Your task to perform on an android device: Do I have any events this weekend? Image 0: 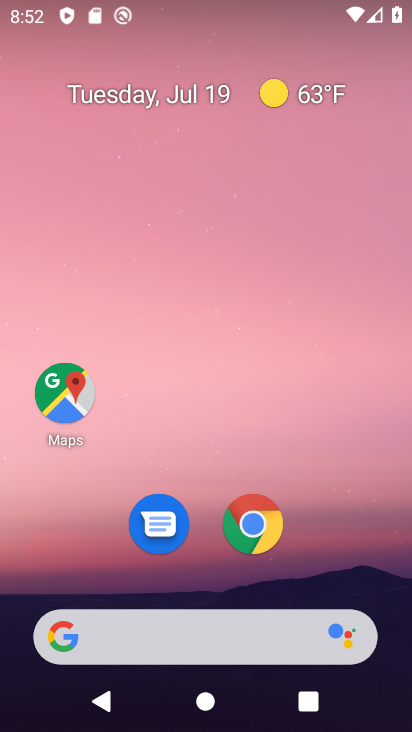
Step 0: press home button
Your task to perform on an android device: Do I have any events this weekend? Image 1: 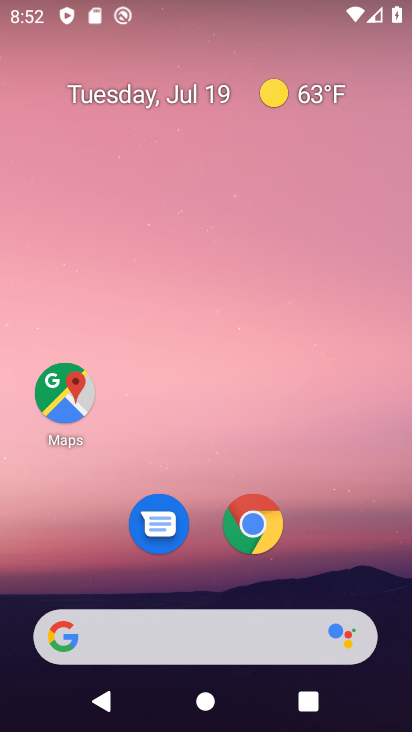
Step 1: drag from (164, 638) to (311, 170)
Your task to perform on an android device: Do I have any events this weekend? Image 2: 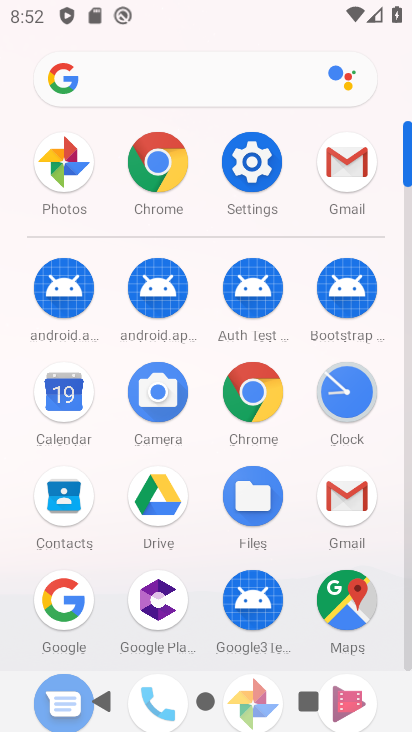
Step 2: click (62, 402)
Your task to perform on an android device: Do I have any events this weekend? Image 3: 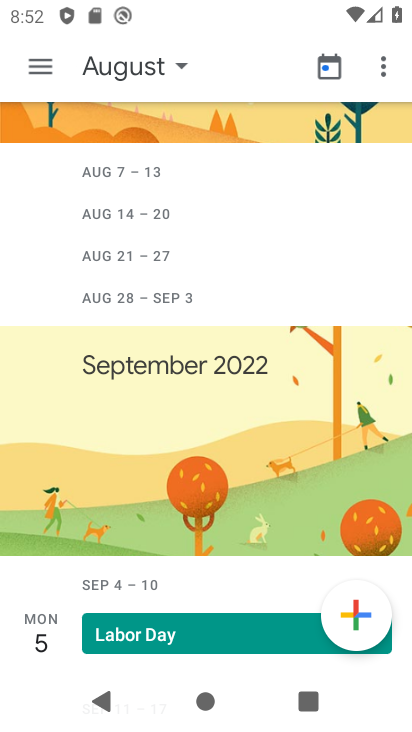
Step 3: click (129, 58)
Your task to perform on an android device: Do I have any events this weekend? Image 4: 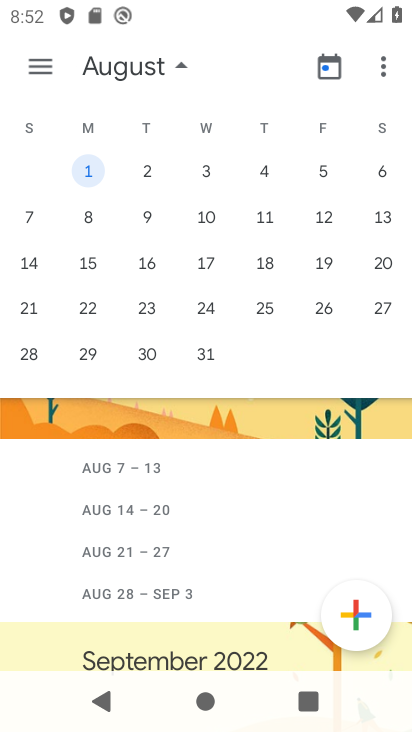
Step 4: drag from (85, 242) to (411, 254)
Your task to perform on an android device: Do I have any events this weekend? Image 5: 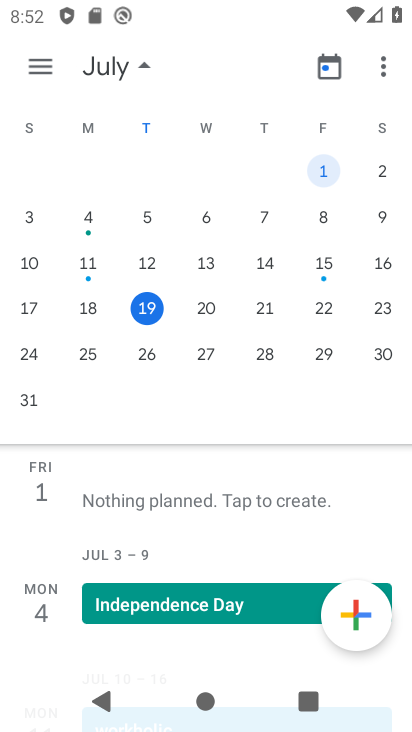
Step 5: click (377, 307)
Your task to perform on an android device: Do I have any events this weekend? Image 6: 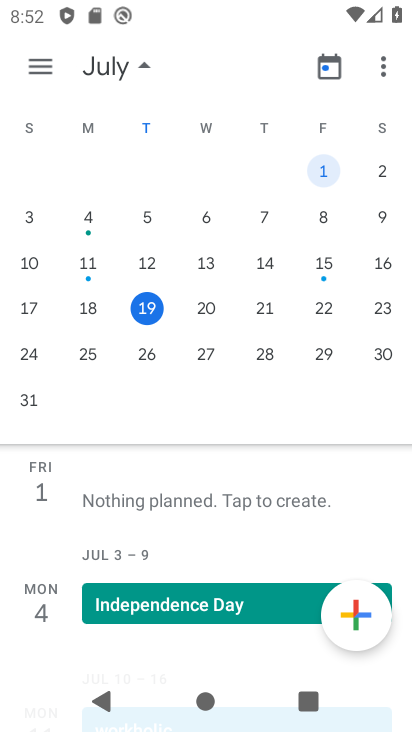
Step 6: click (382, 310)
Your task to perform on an android device: Do I have any events this weekend? Image 7: 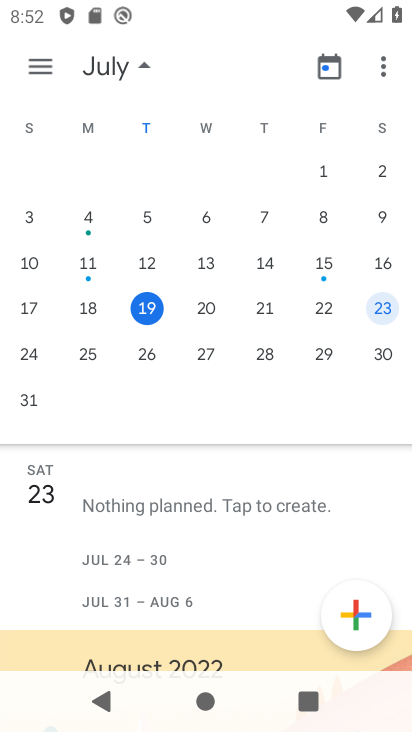
Step 7: click (53, 62)
Your task to perform on an android device: Do I have any events this weekend? Image 8: 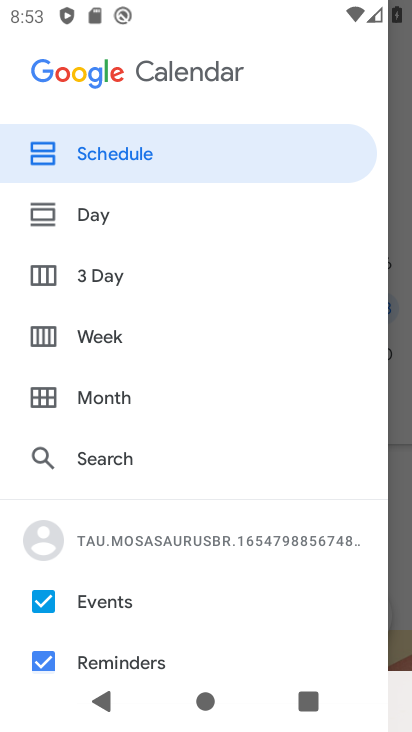
Step 8: click (103, 216)
Your task to perform on an android device: Do I have any events this weekend? Image 9: 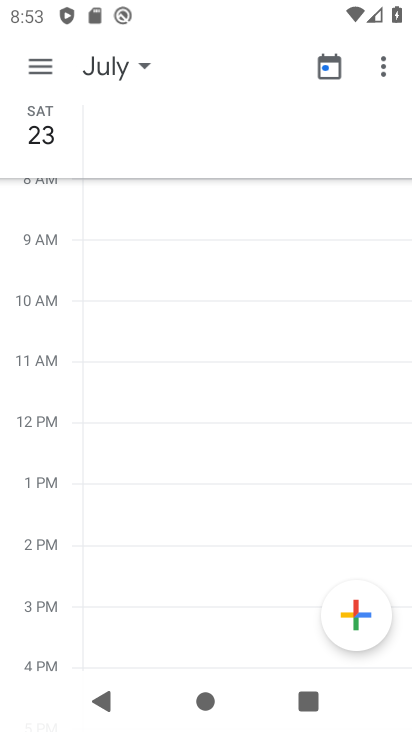
Step 9: click (43, 66)
Your task to perform on an android device: Do I have any events this weekend? Image 10: 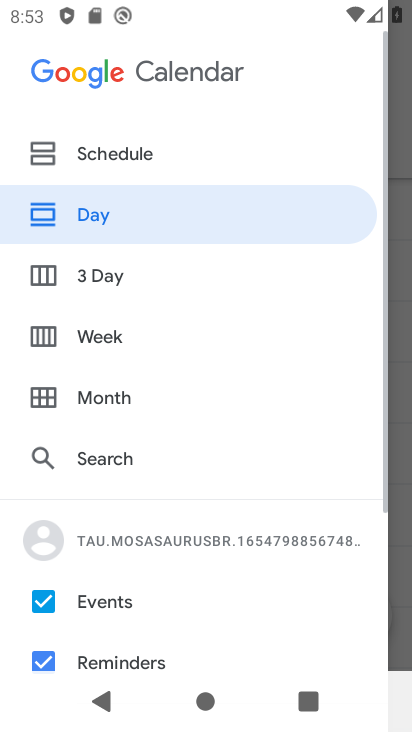
Step 10: click (124, 154)
Your task to perform on an android device: Do I have any events this weekend? Image 11: 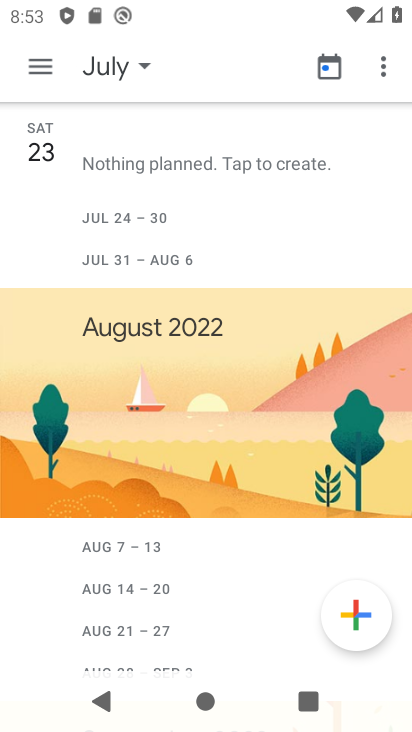
Step 11: task complete